Your task to perform on an android device: Add "bose soundsport free" to the cart on walmart Image 0: 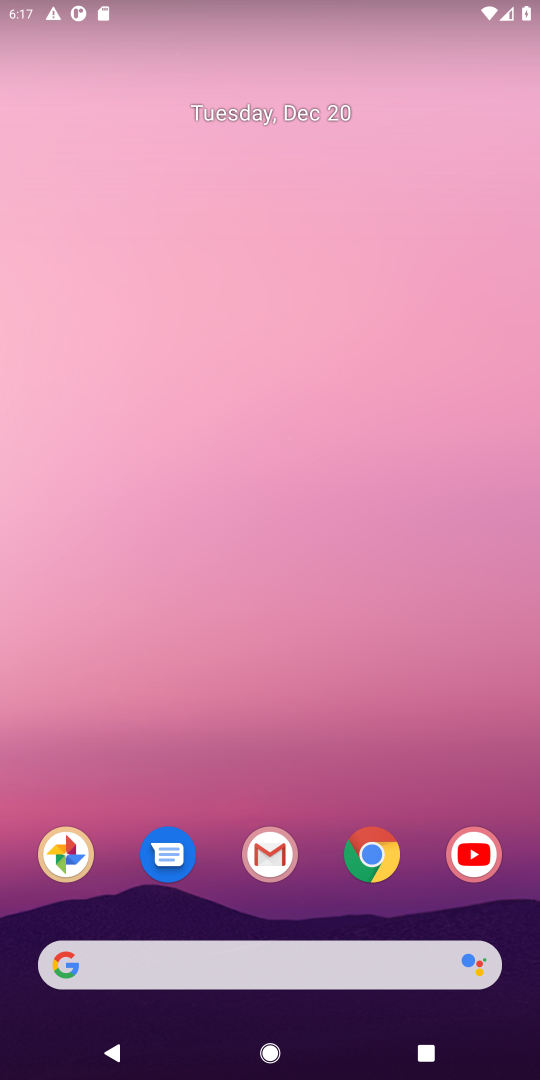
Step 0: click (375, 857)
Your task to perform on an android device: Add "bose soundsport free" to the cart on walmart Image 1: 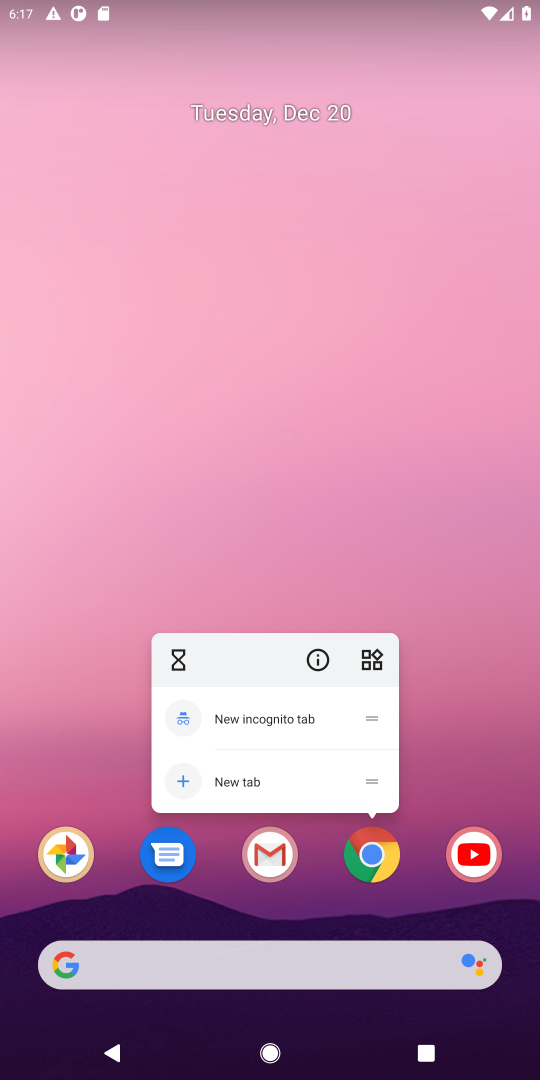
Step 1: click (375, 857)
Your task to perform on an android device: Add "bose soundsport free" to the cart on walmart Image 2: 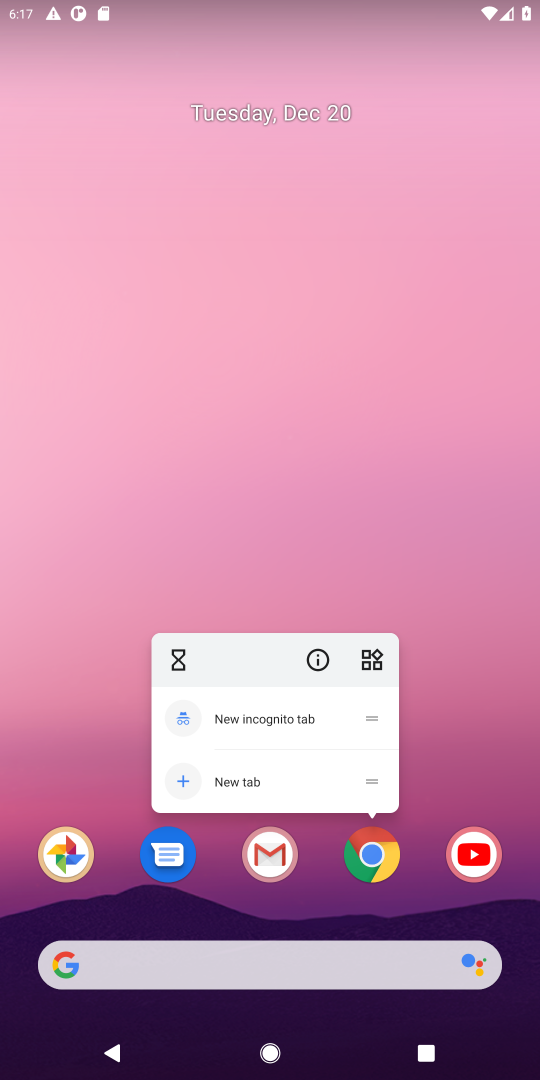
Step 2: click (374, 857)
Your task to perform on an android device: Add "bose soundsport free" to the cart on walmart Image 3: 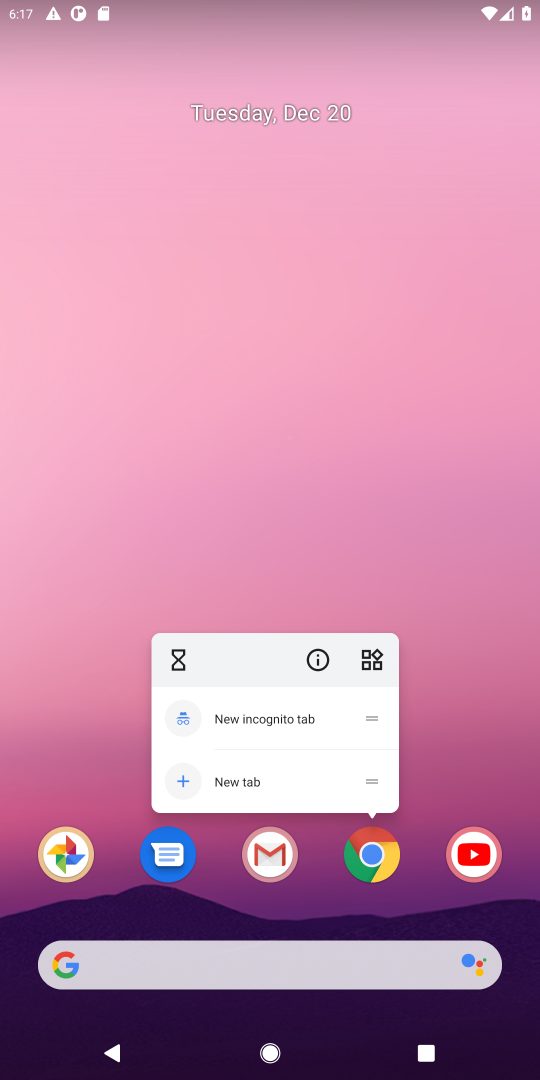
Step 3: click (374, 857)
Your task to perform on an android device: Add "bose soundsport free" to the cart on walmart Image 4: 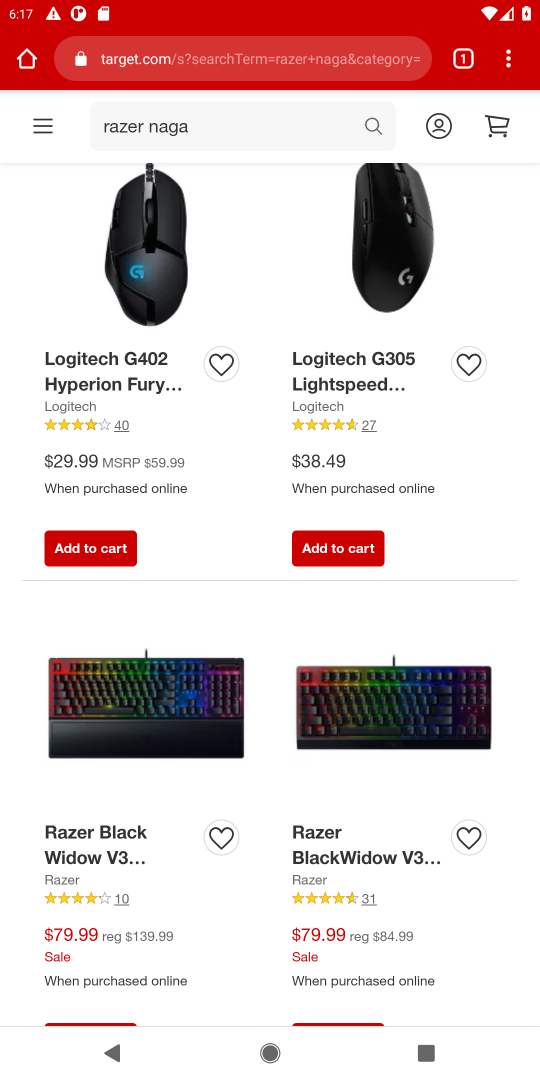
Step 4: click (178, 55)
Your task to perform on an android device: Add "bose soundsport free" to the cart on walmart Image 5: 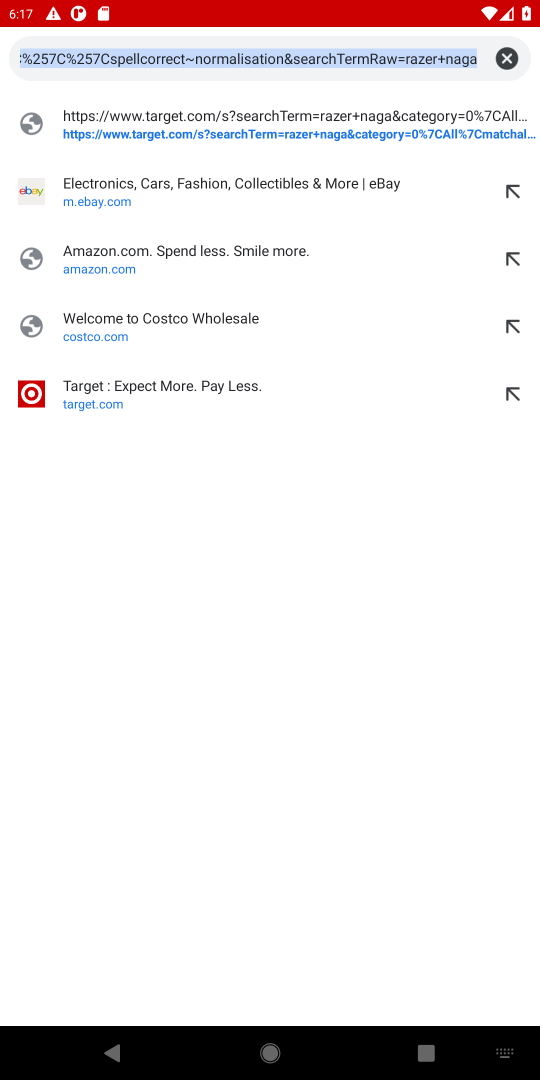
Step 5: type "walmart.com"
Your task to perform on an android device: Add "bose soundsport free" to the cart on walmart Image 6: 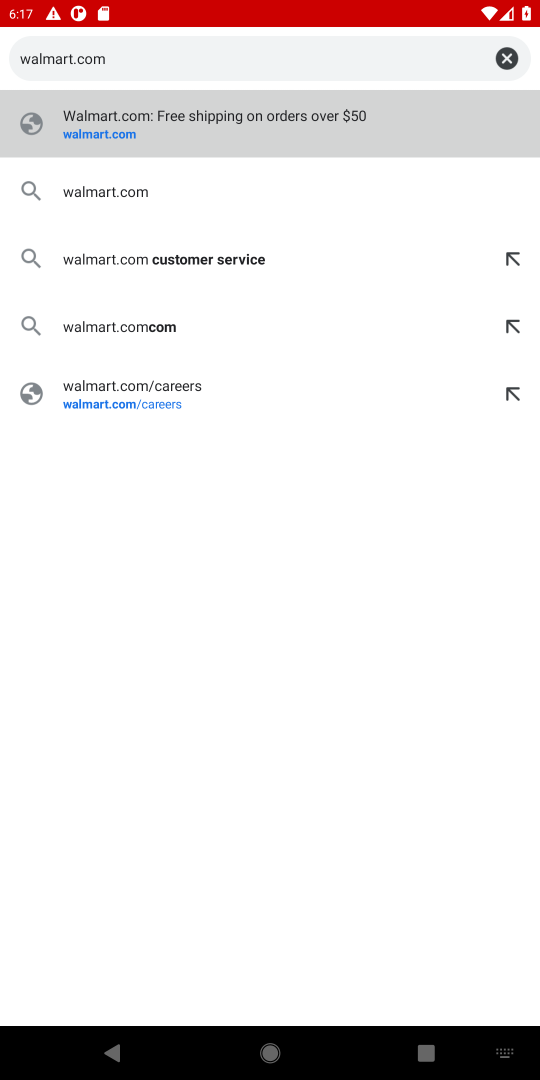
Step 6: click (109, 140)
Your task to perform on an android device: Add "bose soundsport free" to the cart on walmart Image 7: 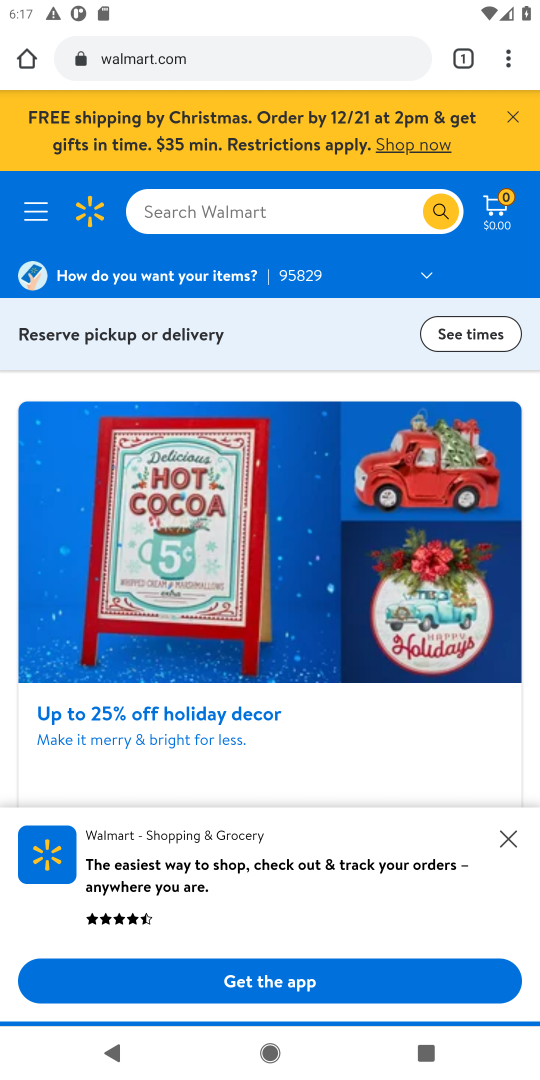
Step 7: click (194, 219)
Your task to perform on an android device: Add "bose soundsport free" to the cart on walmart Image 8: 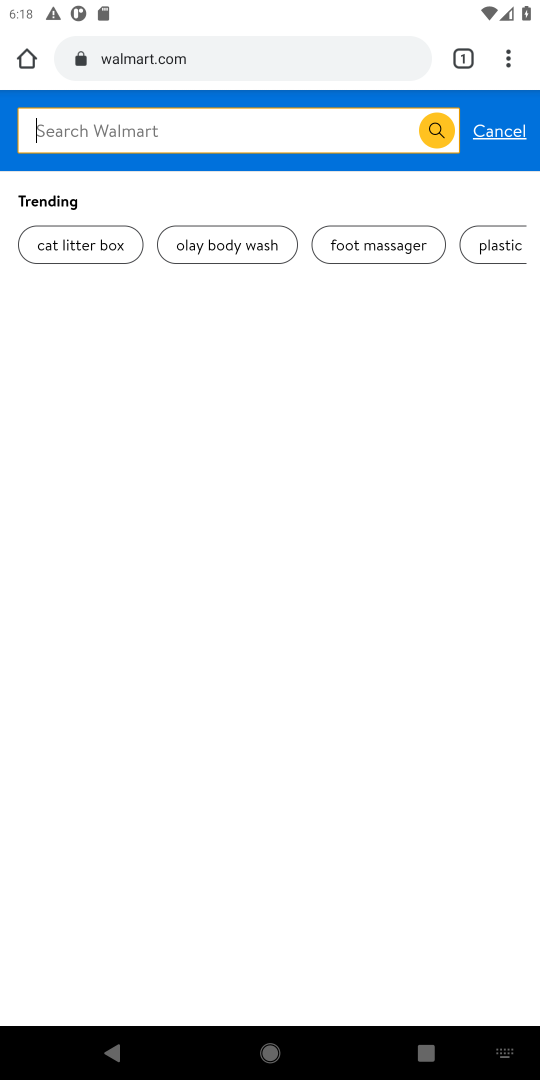
Step 8: type "bose soundsport free"
Your task to perform on an android device: Add "bose soundsport free" to the cart on walmart Image 9: 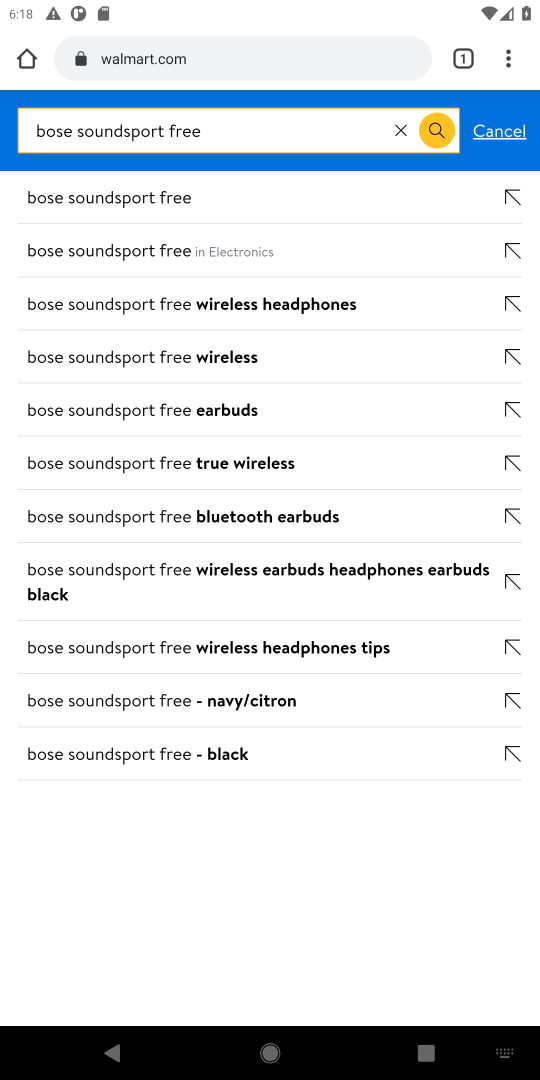
Step 9: click (49, 198)
Your task to perform on an android device: Add "bose soundsport free" to the cart on walmart Image 10: 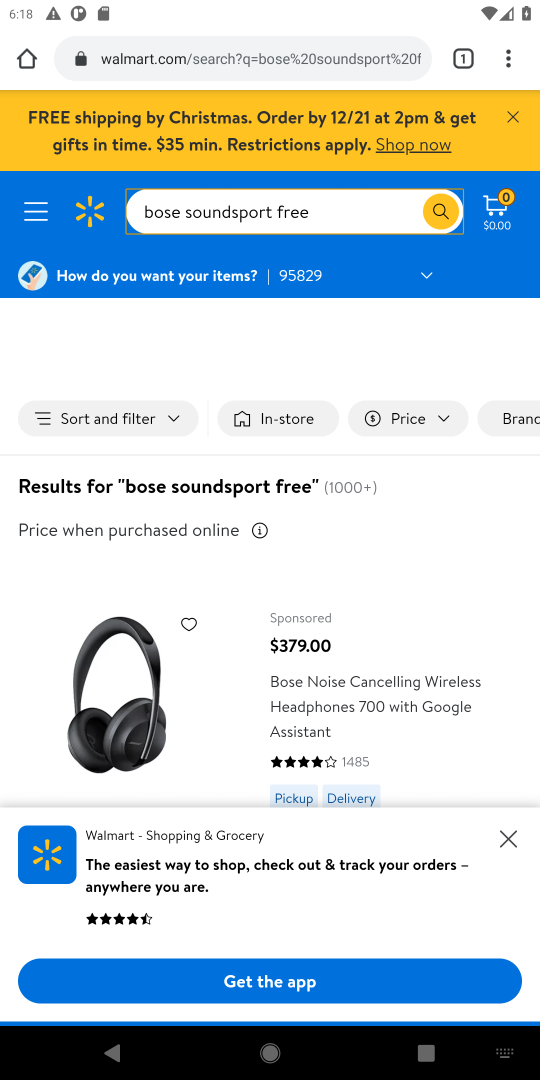
Step 10: drag from (156, 660) to (148, 217)
Your task to perform on an android device: Add "bose soundsport free" to the cart on walmart Image 11: 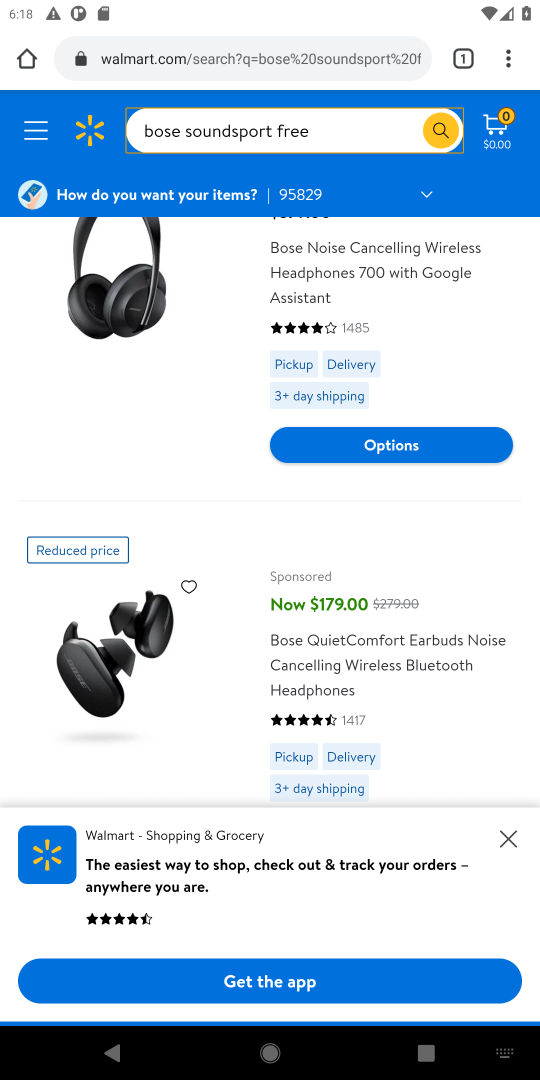
Step 11: click (515, 842)
Your task to perform on an android device: Add "bose soundsport free" to the cart on walmart Image 12: 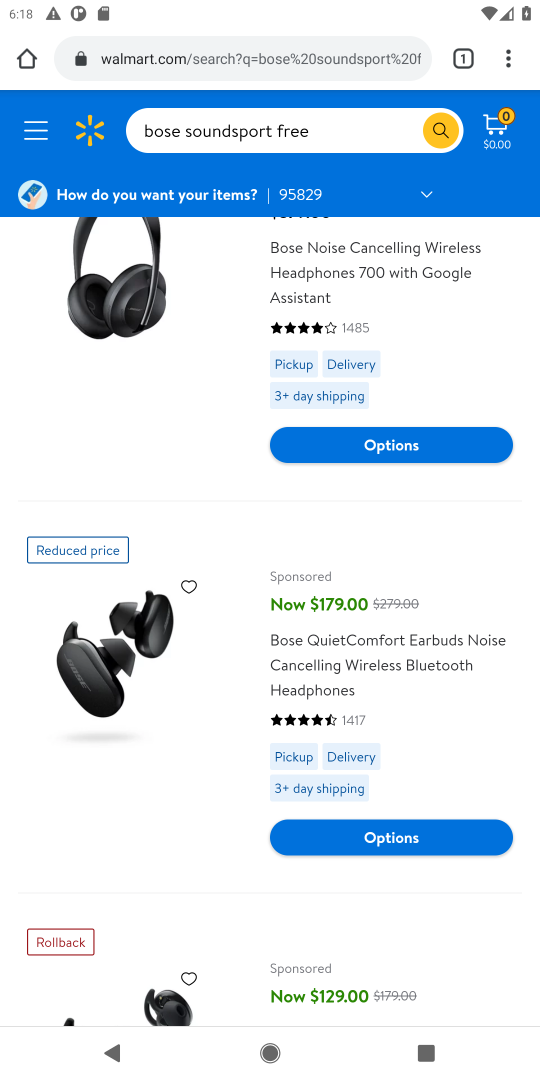
Step 12: task complete